Your task to perform on an android device: toggle notifications settings in the gmail app Image 0: 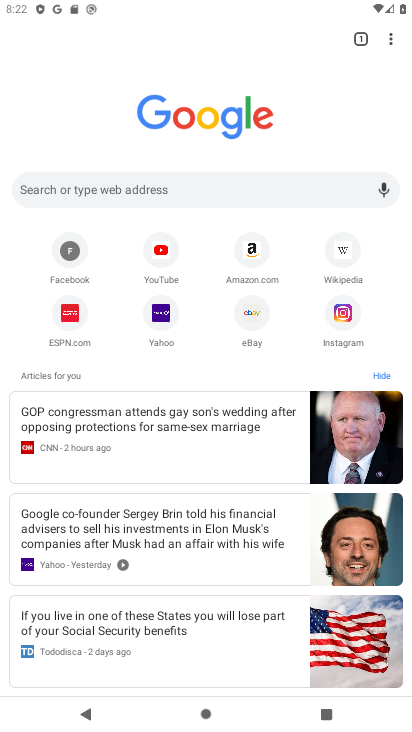
Step 0: press home button
Your task to perform on an android device: toggle notifications settings in the gmail app Image 1: 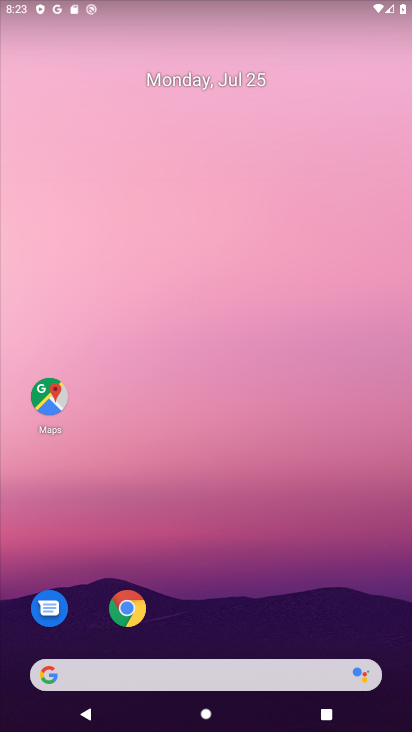
Step 1: drag from (217, 637) to (207, 183)
Your task to perform on an android device: toggle notifications settings in the gmail app Image 2: 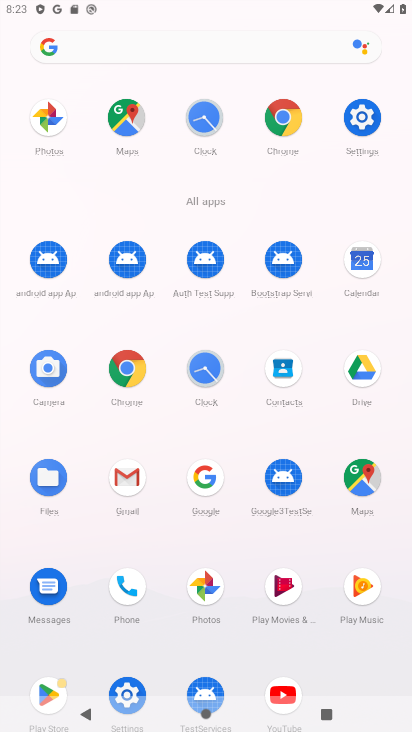
Step 2: click (120, 470)
Your task to perform on an android device: toggle notifications settings in the gmail app Image 3: 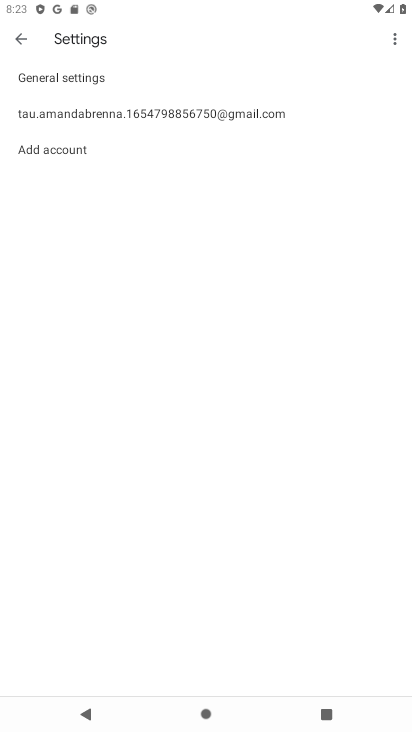
Step 3: click (85, 111)
Your task to perform on an android device: toggle notifications settings in the gmail app Image 4: 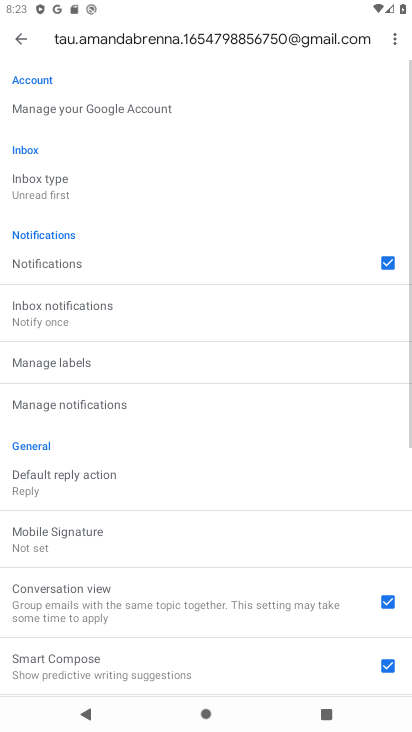
Step 4: click (64, 253)
Your task to perform on an android device: toggle notifications settings in the gmail app Image 5: 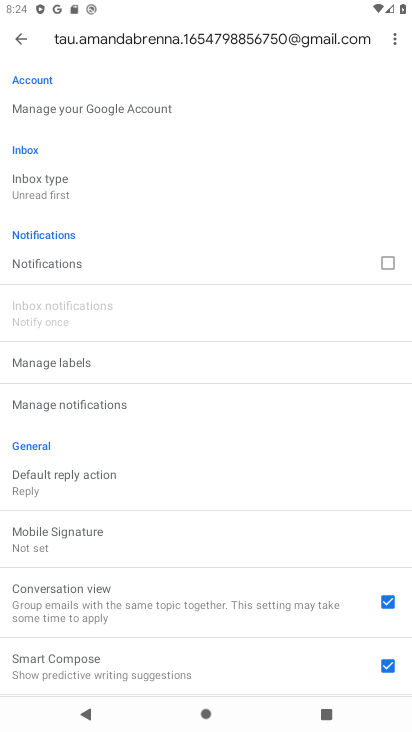
Step 5: task complete